Your task to perform on an android device: Open Google Chrome Image 0: 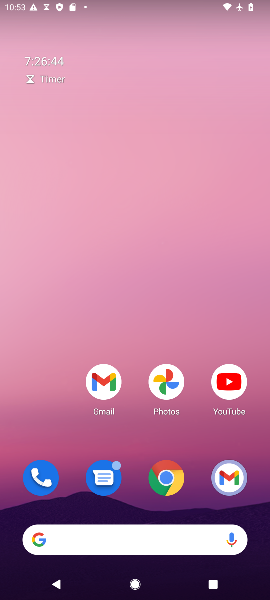
Step 0: click (165, 470)
Your task to perform on an android device: Open Google Chrome Image 1: 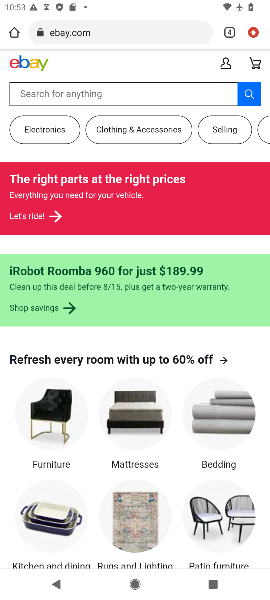
Step 1: task complete